Your task to perform on an android device: Open notification settings Image 0: 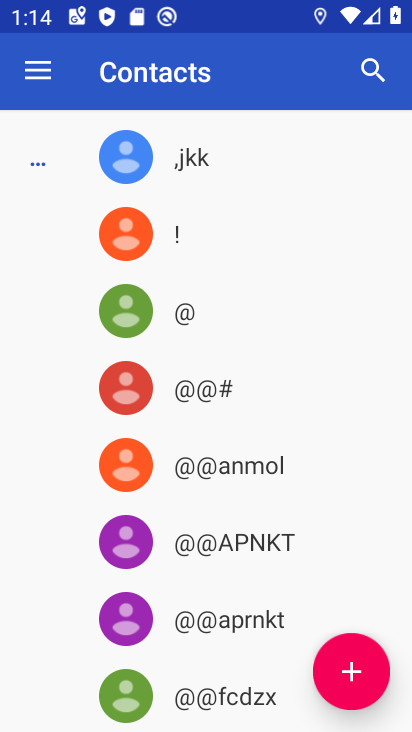
Step 0: press home button
Your task to perform on an android device: Open notification settings Image 1: 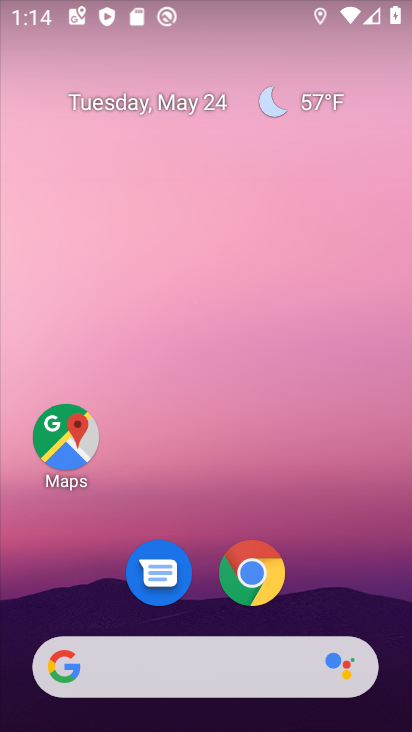
Step 1: drag from (359, 605) to (343, 194)
Your task to perform on an android device: Open notification settings Image 2: 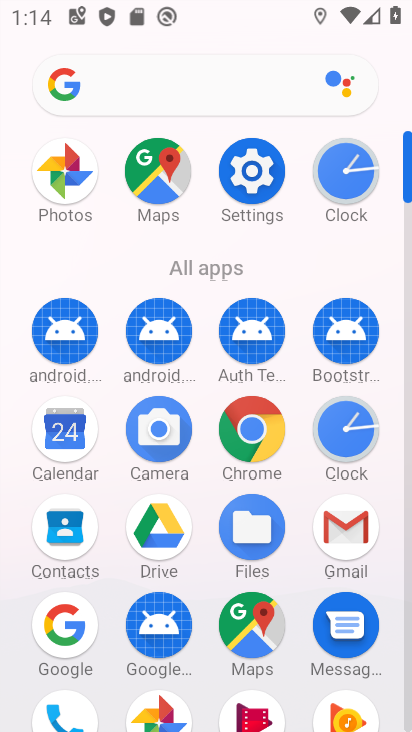
Step 2: click (260, 171)
Your task to perform on an android device: Open notification settings Image 3: 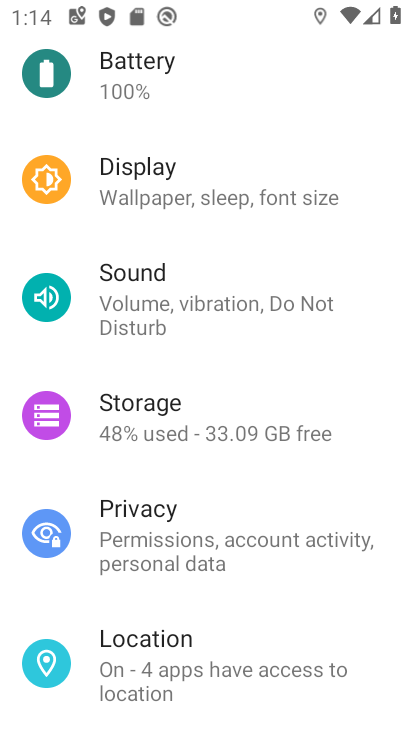
Step 3: drag from (259, 172) to (237, 538)
Your task to perform on an android device: Open notification settings Image 4: 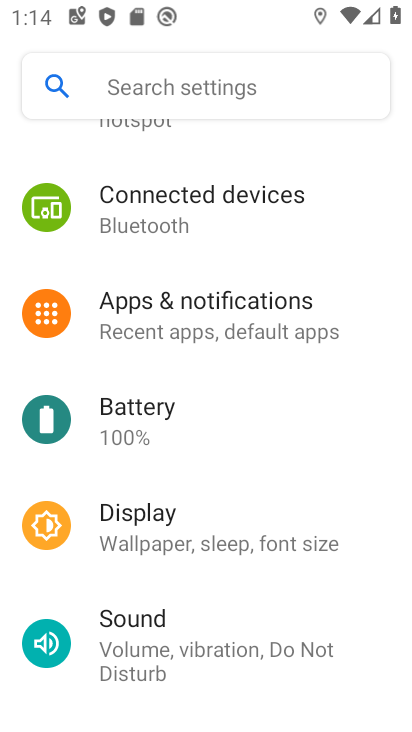
Step 4: click (238, 298)
Your task to perform on an android device: Open notification settings Image 5: 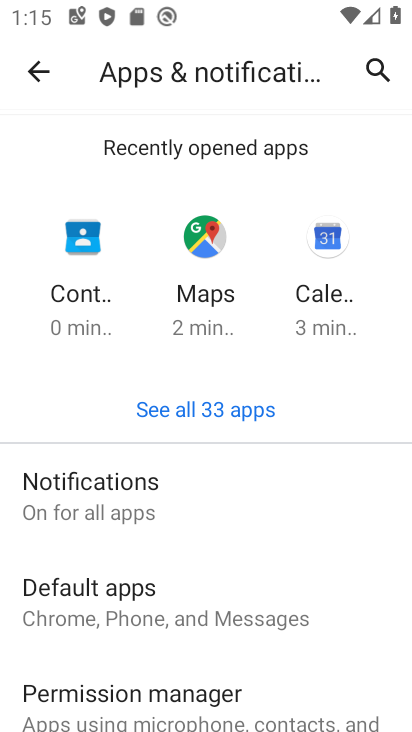
Step 5: click (170, 501)
Your task to perform on an android device: Open notification settings Image 6: 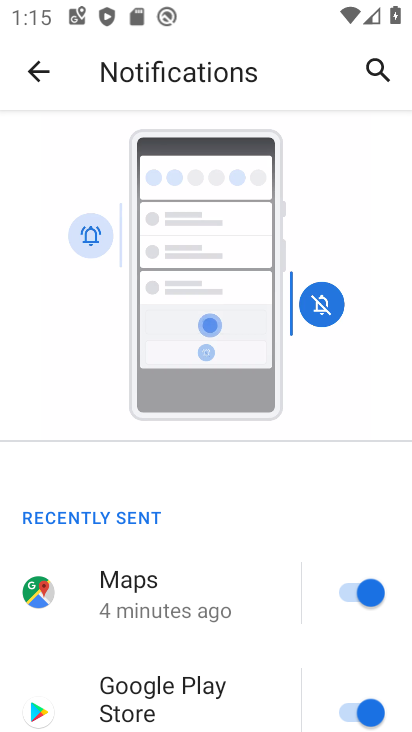
Step 6: drag from (232, 704) to (233, 296)
Your task to perform on an android device: Open notification settings Image 7: 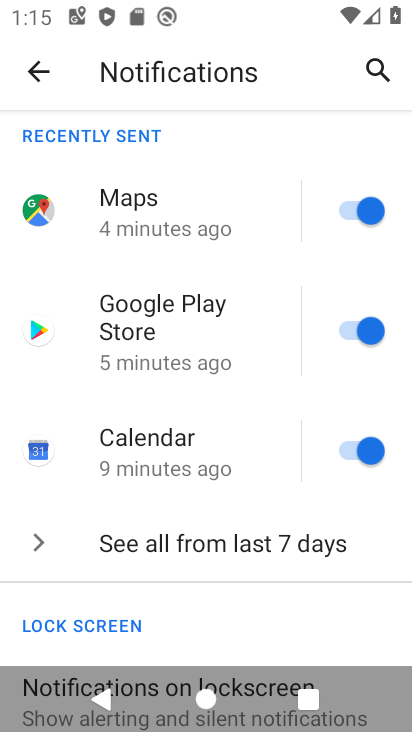
Step 7: drag from (230, 627) to (229, 253)
Your task to perform on an android device: Open notification settings Image 8: 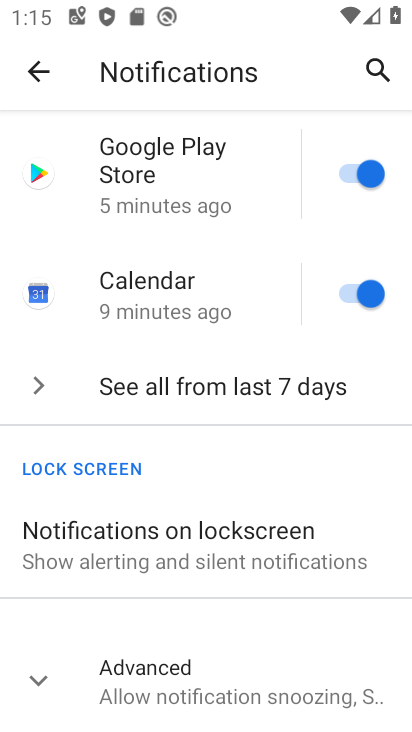
Step 8: click (245, 561)
Your task to perform on an android device: Open notification settings Image 9: 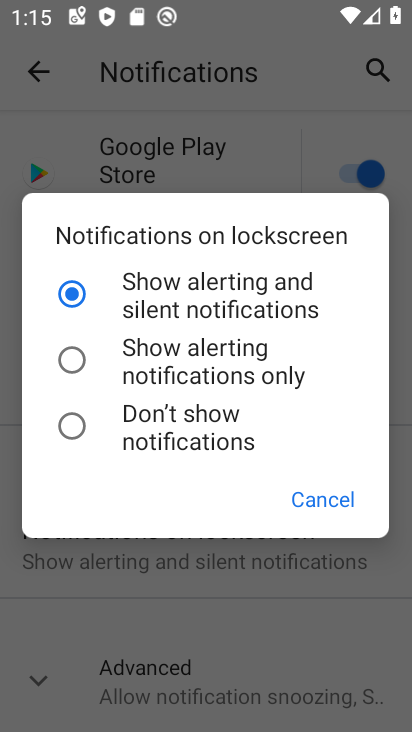
Step 9: click (306, 510)
Your task to perform on an android device: Open notification settings Image 10: 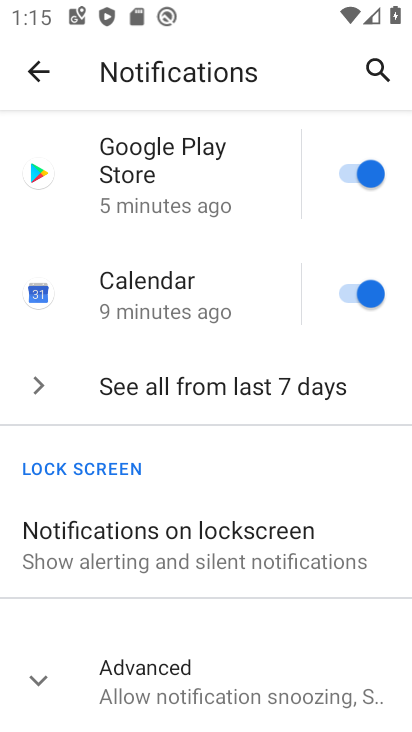
Step 10: task complete